Your task to perform on an android device: Add razer naga to the cart on amazon Image 0: 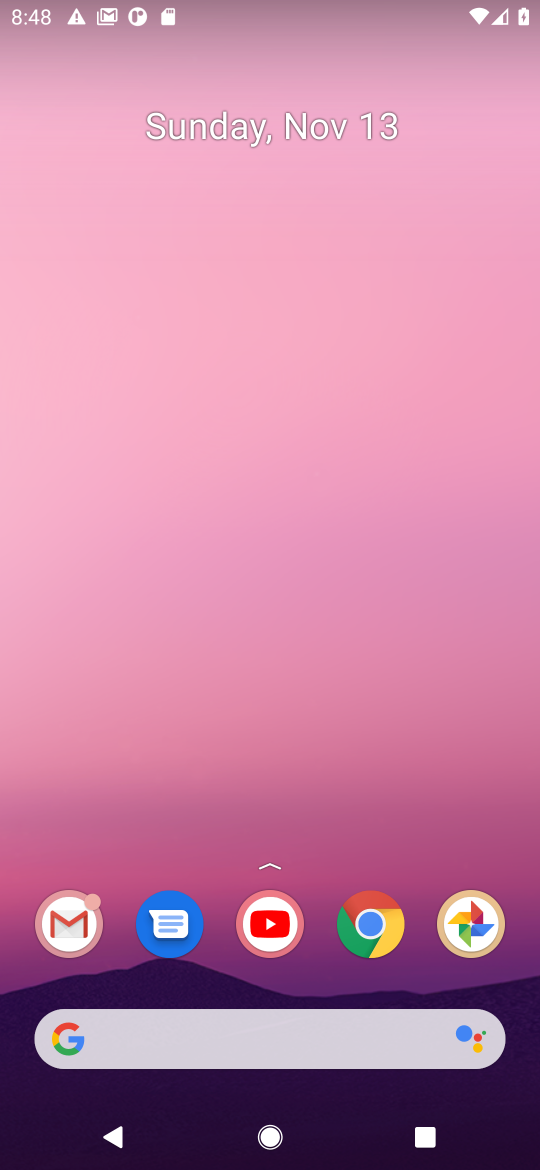
Step 0: click (376, 933)
Your task to perform on an android device: Add razer naga to the cart on amazon Image 1: 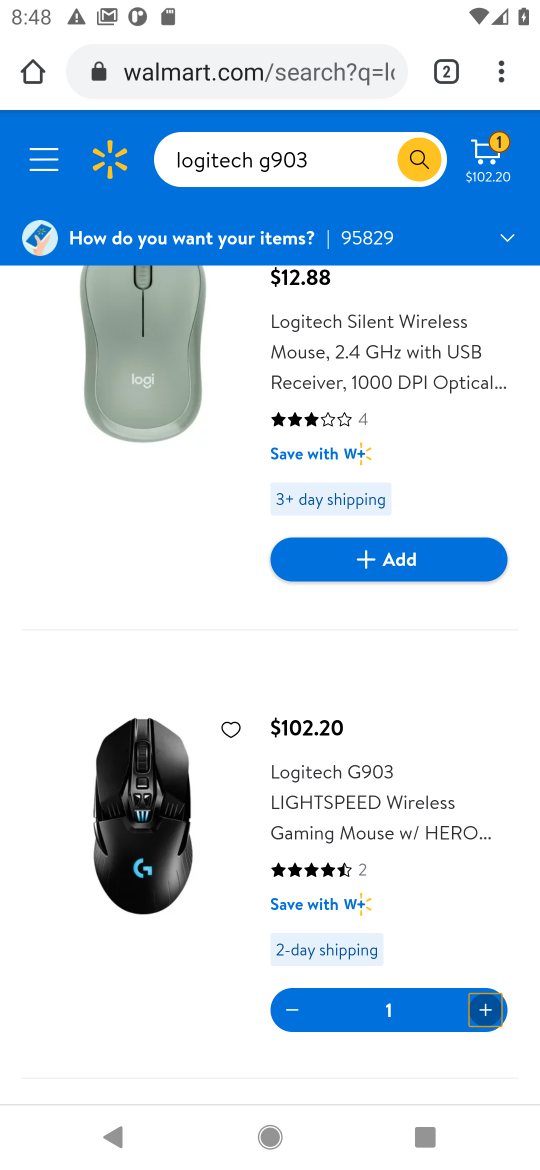
Step 1: click (239, 67)
Your task to perform on an android device: Add razer naga to the cart on amazon Image 2: 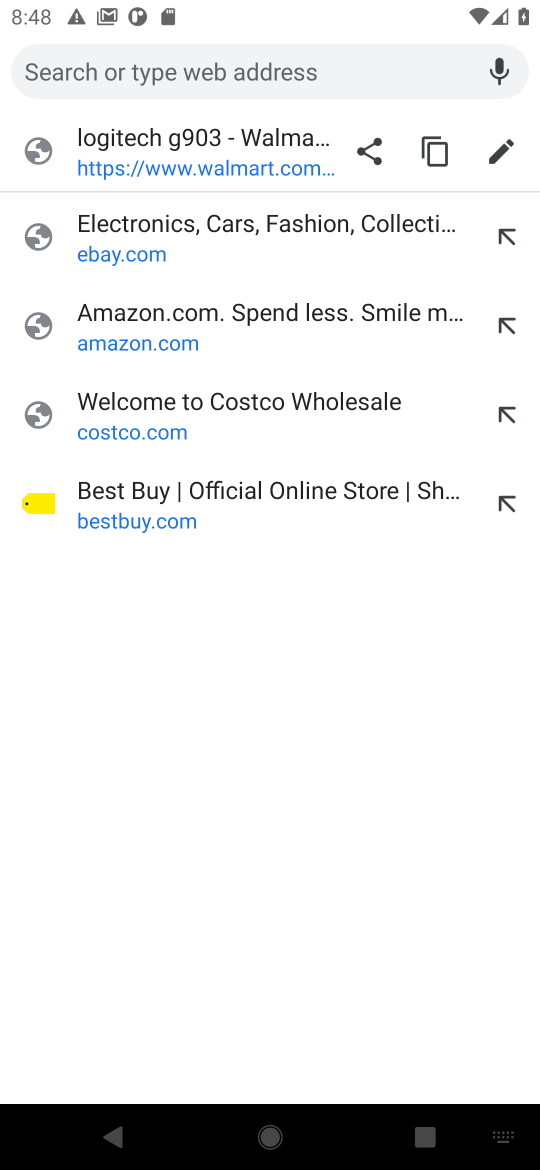
Step 2: click (142, 359)
Your task to perform on an android device: Add razer naga to the cart on amazon Image 3: 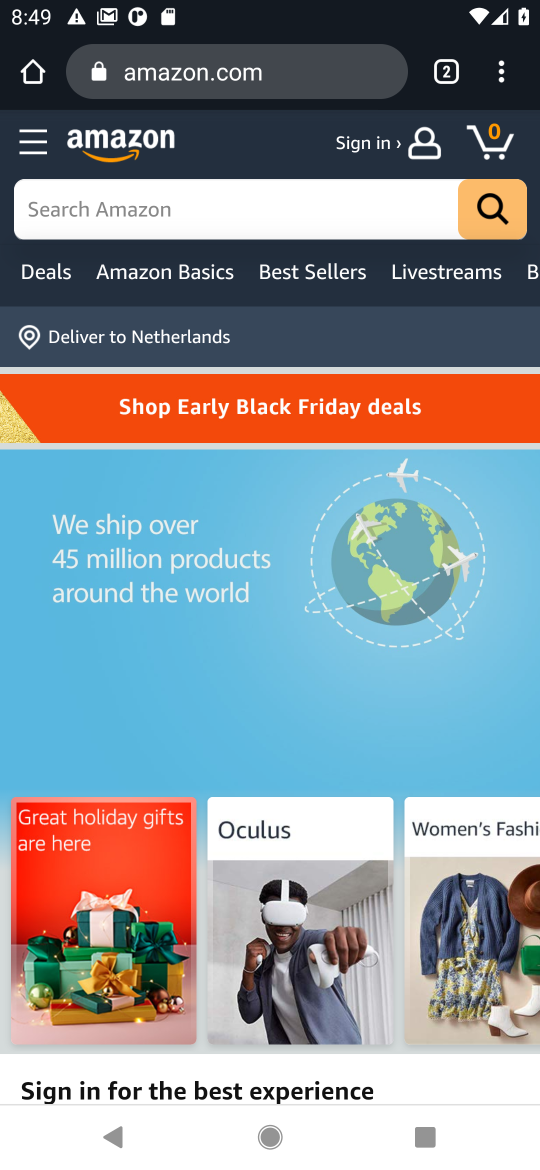
Step 3: click (57, 209)
Your task to perform on an android device: Add razer naga to the cart on amazon Image 4: 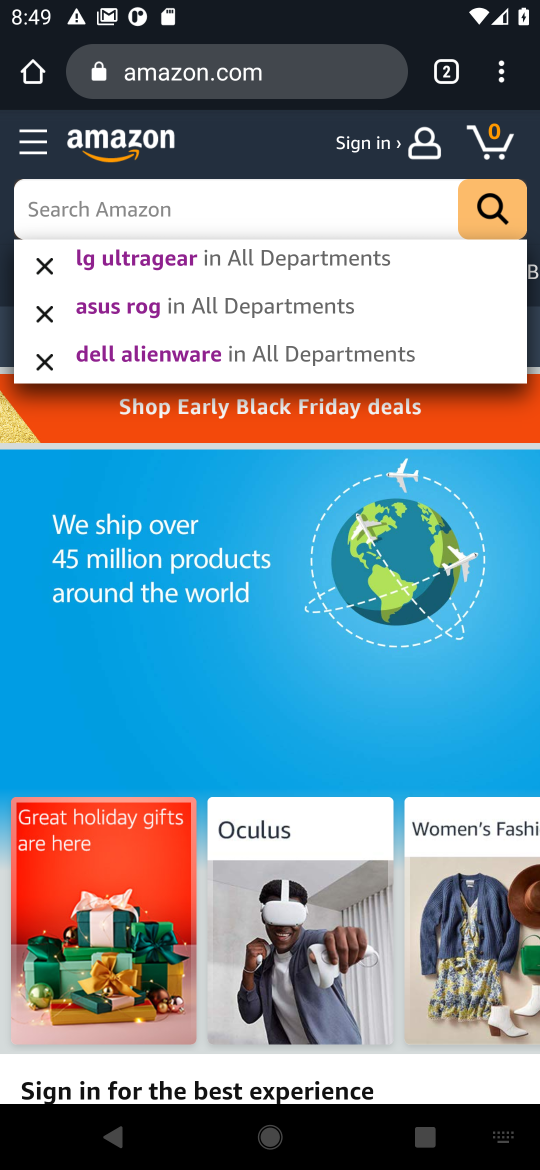
Step 4: type "razer naga"
Your task to perform on an android device: Add razer naga to the cart on amazon Image 5: 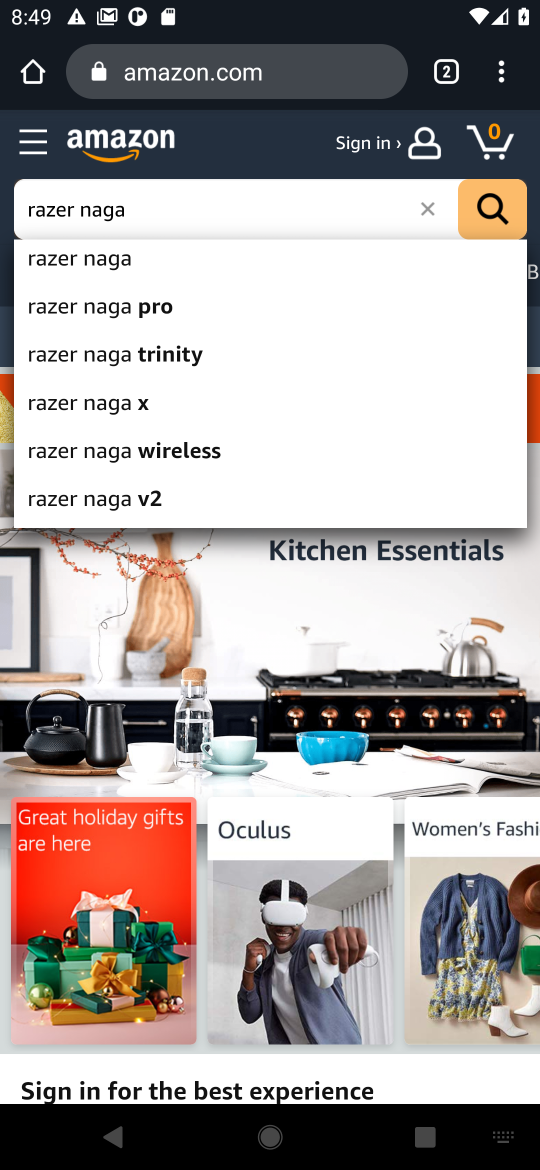
Step 5: click (58, 265)
Your task to perform on an android device: Add razer naga to the cart on amazon Image 6: 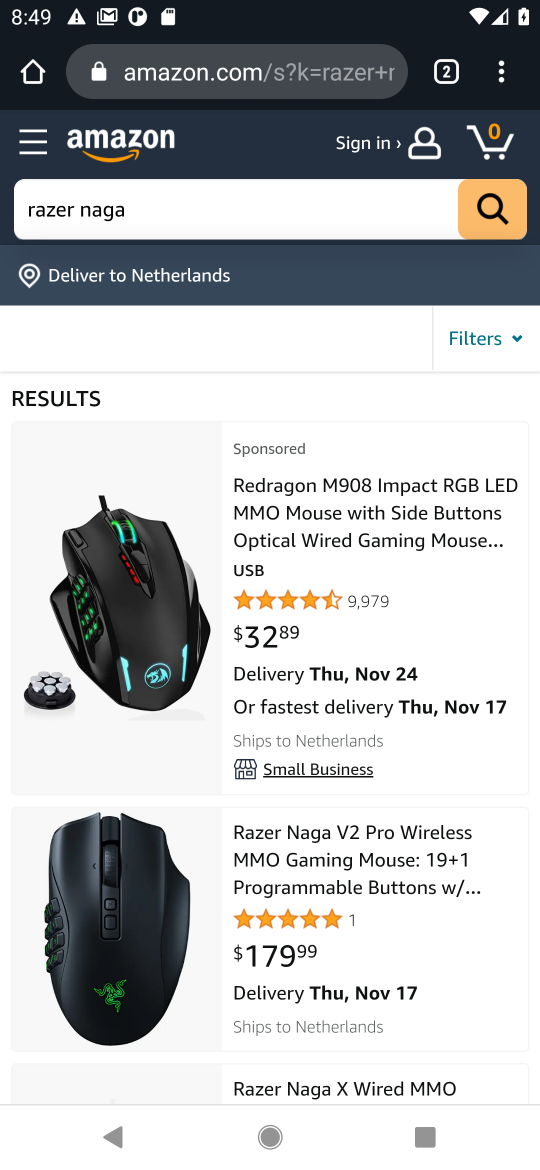
Step 6: click (89, 939)
Your task to perform on an android device: Add razer naga to the cart on amazon Image 7: 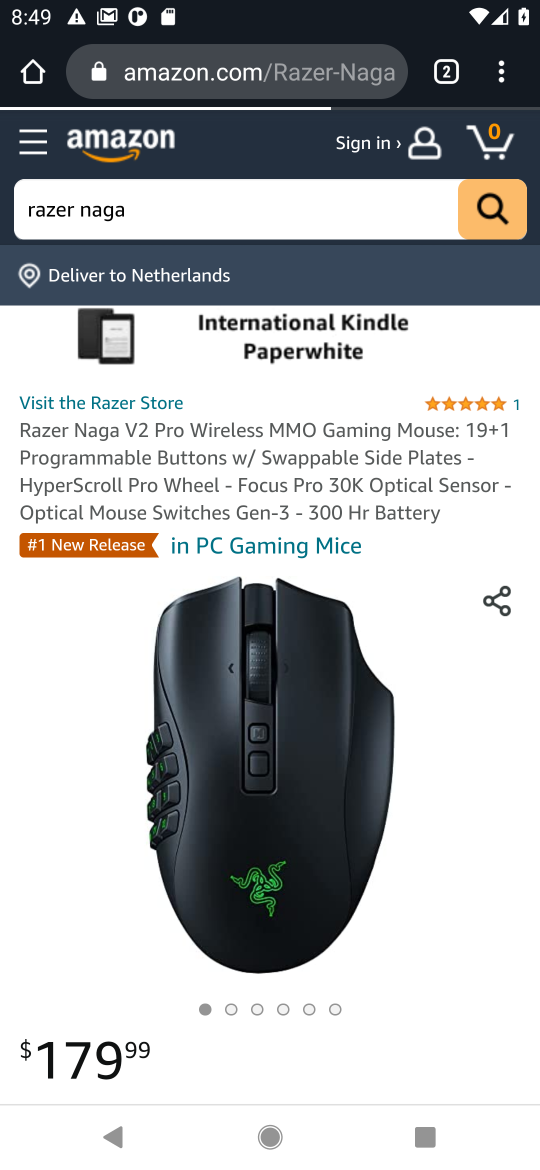
Step 7: drag from (263, 915) to (259, 506)
Your task to perform on an android device: Add razer naga to the cart on amazon Image 8: 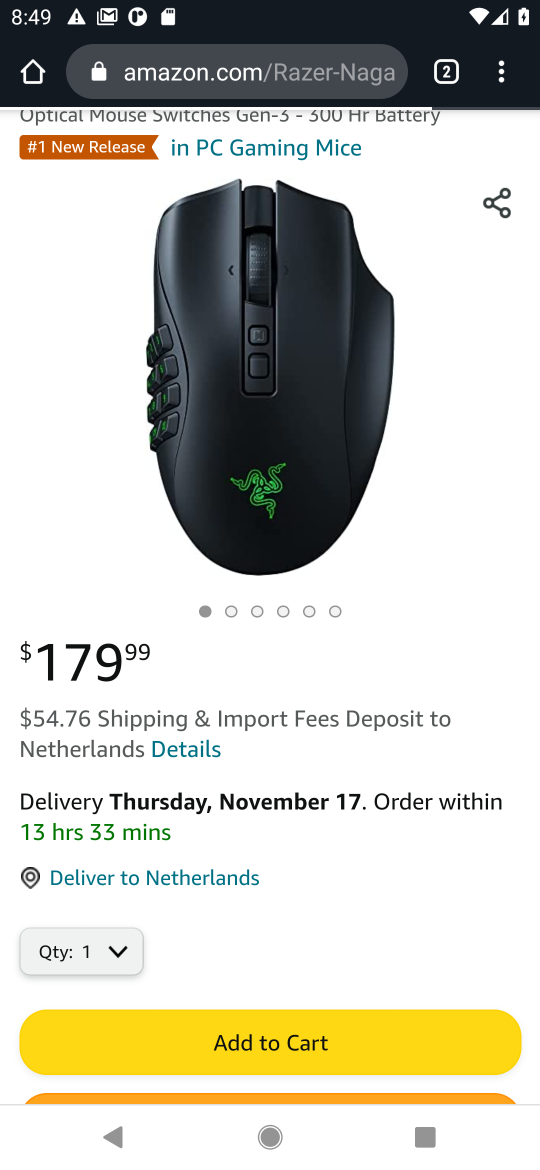
Step 8: click (256, 1039)
Your task to perform on an android device: Add razer naga to the cart on amazon Image 9: 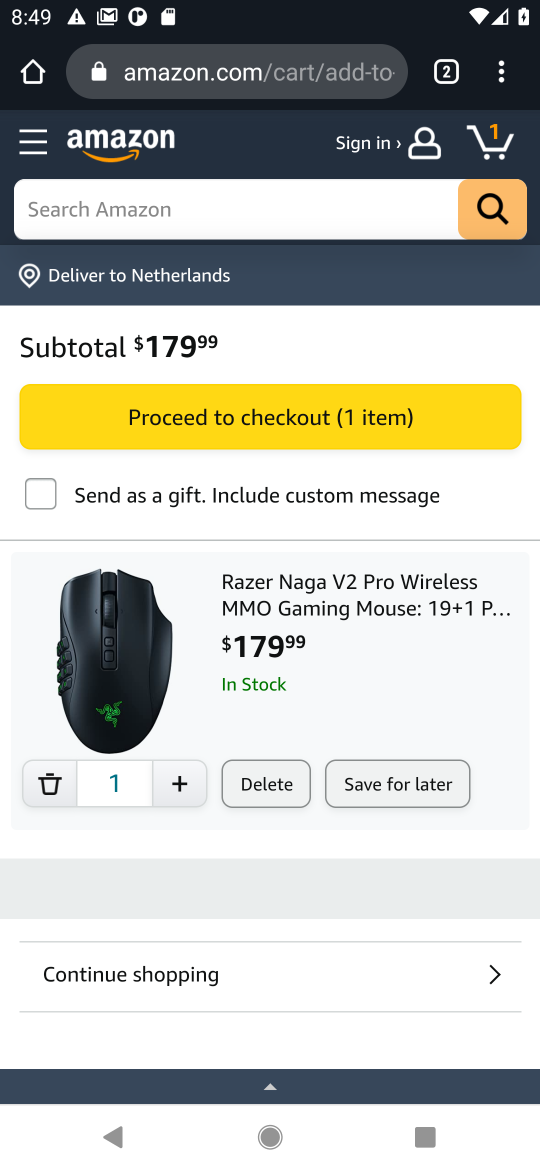
Step 9: task complete